Your task to perform on an android device: set the timer Image 0: 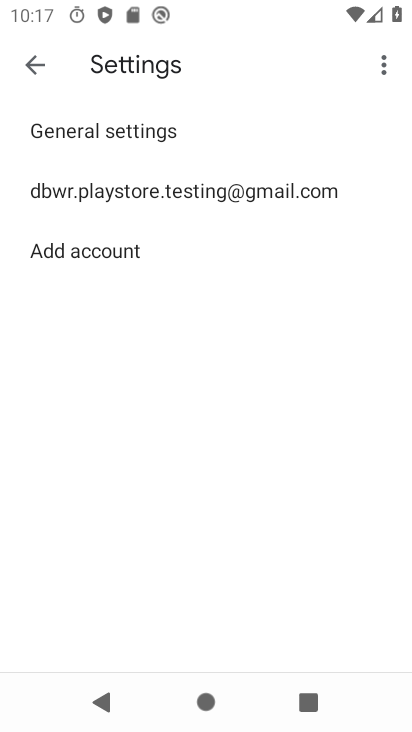
Step 0: press home button
Your task to perform on an android device: set the timer Image 1: 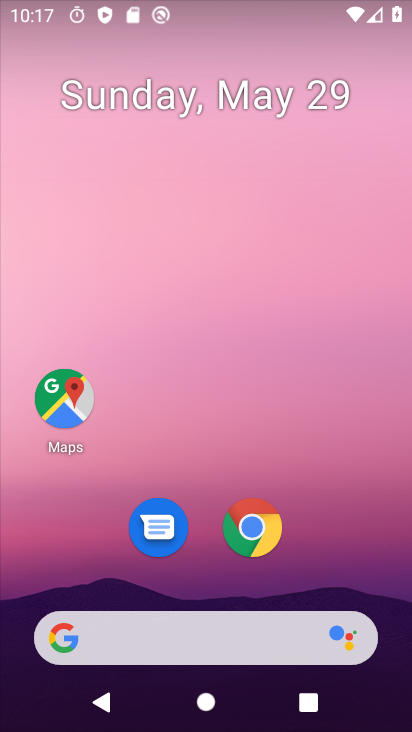
Step 1: drag from (260, 459) to (238, 193)
Your task to perform on an android device: set the timer Image 2: 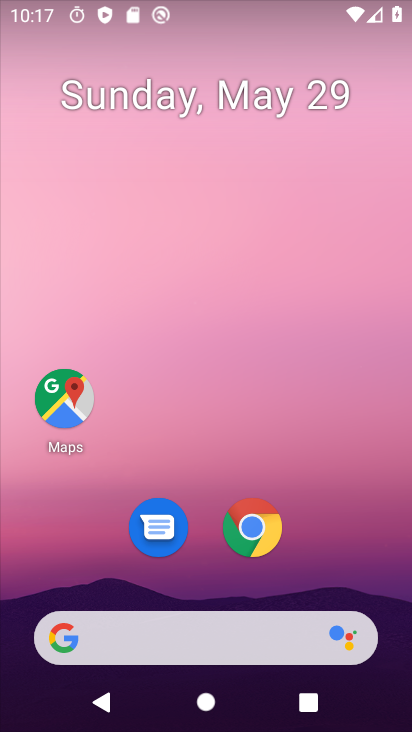
Step 2: drag from (295, 507) to (267, 207)
Your task to perform on an android device: set the timer Image 3: 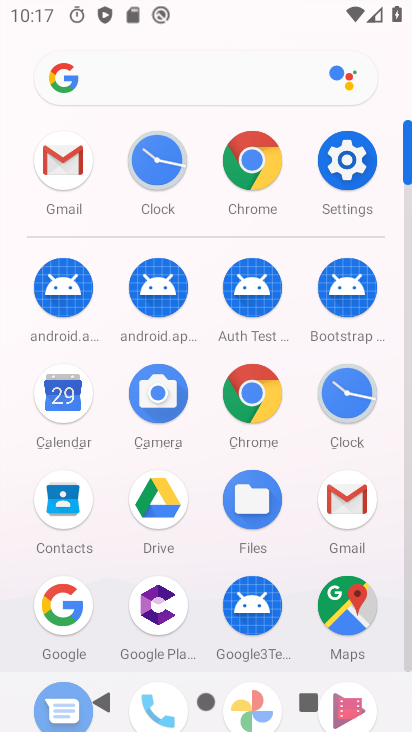
Step 3: click (173, 163)
Your task to perform on an android device: set the timer Image 4: 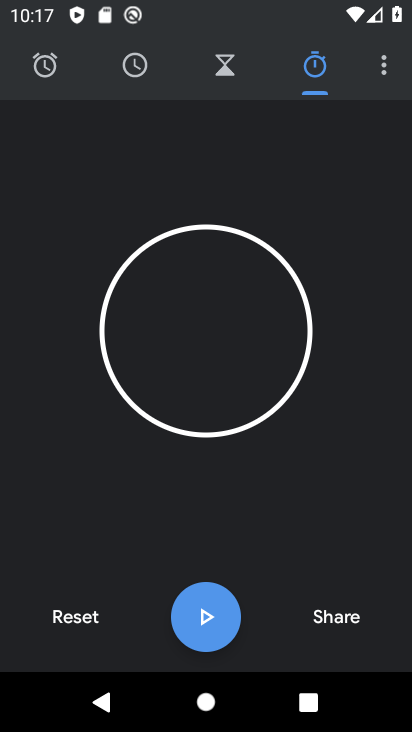
Step 4: click (217, 63)
Your task to perform on an android device: set the timer Image 5: 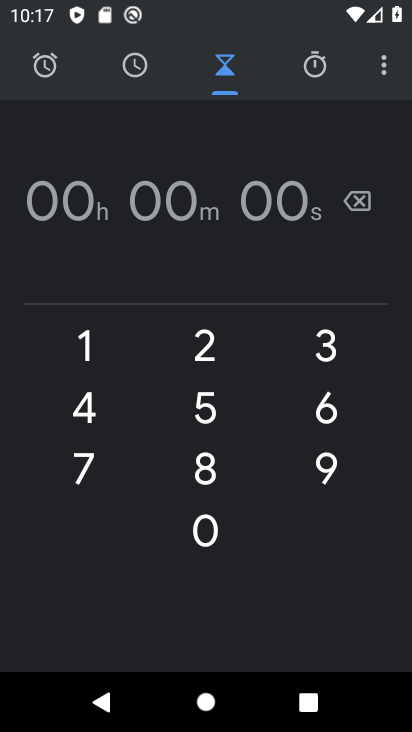
Step 5: click (202, 398)
Your task to perform on an android device: set the timer Image 6: 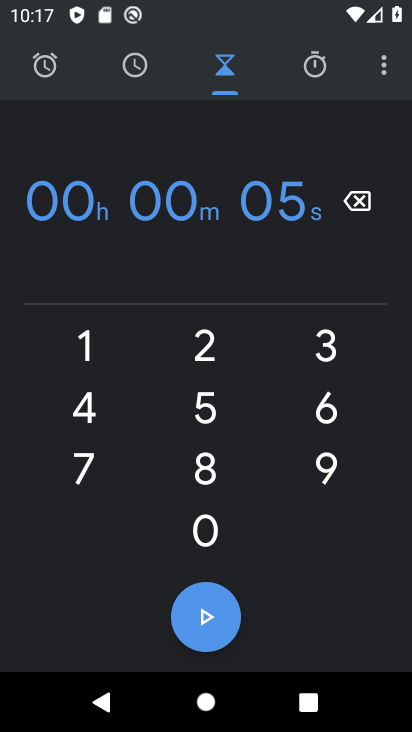
Step 6: task complete